Your task to perform on an android device: open the mobile data screen to see how much data has been used Image 0: 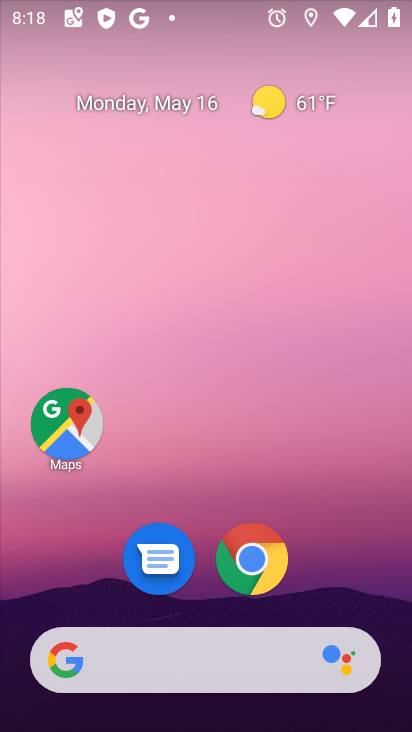
Step 0: drag from (363, 582) to (350, 90)
Your task to perform on an android device: open the mobile data screen to see how much data has been used Image 1: 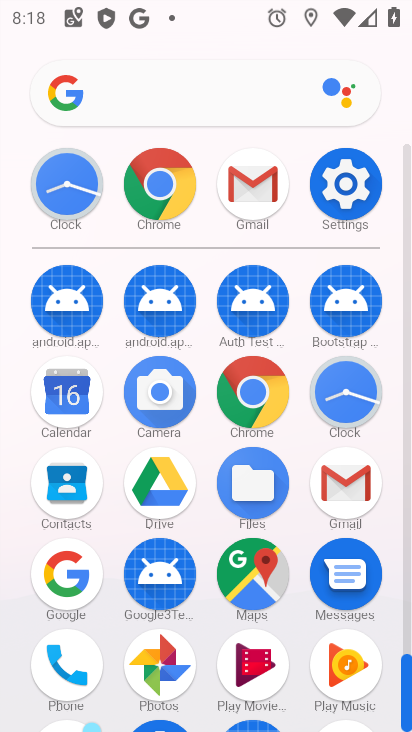
Step 1: drag from (386, 529) to (380, 255)
Your task to perform on an android device: open the mobile data screen to see how much data has been used Image 2: 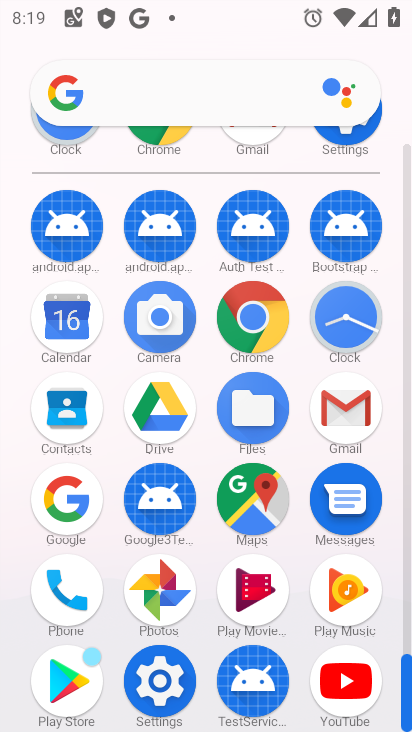
Step 2: click (176, 711)
Your task to perform on an android device: open the mobile data screen to see how much data has been used Image 3: 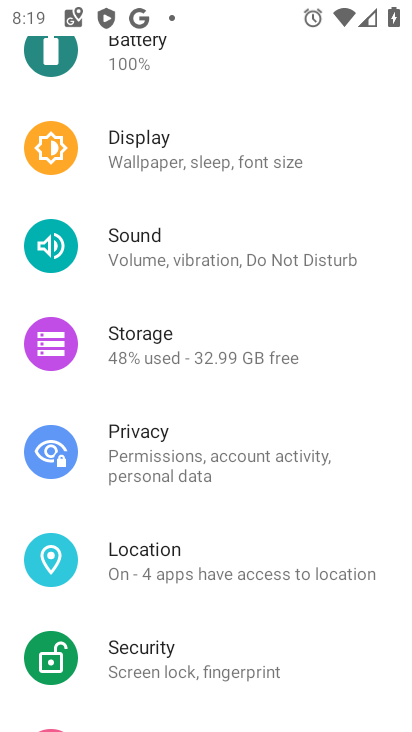
Step 3: drag from (275, 200) to (238, 602)
Your task to perform on an android device: open the mobile data screen to see how much data has been used Image 4: 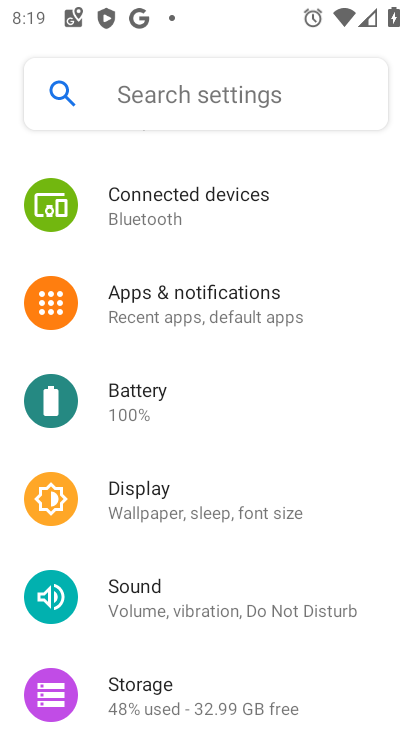
Step 4: drag from (268, 296) to (251, 548)
Your task to perform on an android device: open the mobile data screen to see how much data has been used Image 5: 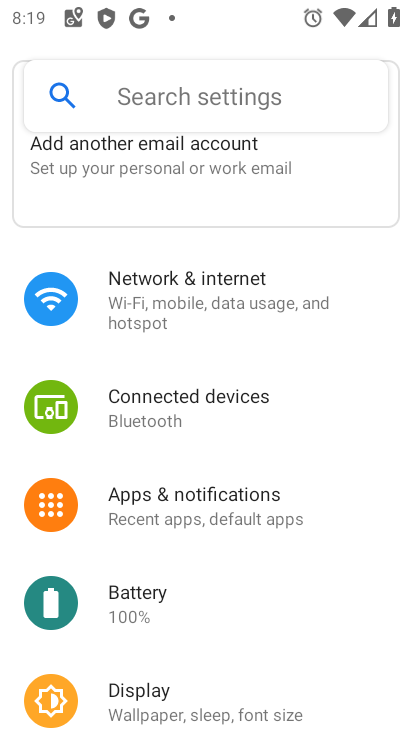
Step 5: click (274, 295)
Your task to perform on an android device: open the mobile data screen to see how much data has been used Image 6: 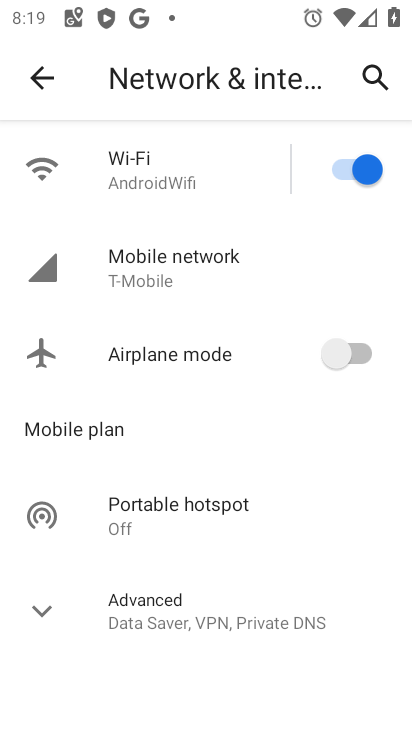
Step 6: click (236, 249)
Your task to perform on an android device: open the mobile data screen to see how much data has been used Image 7: 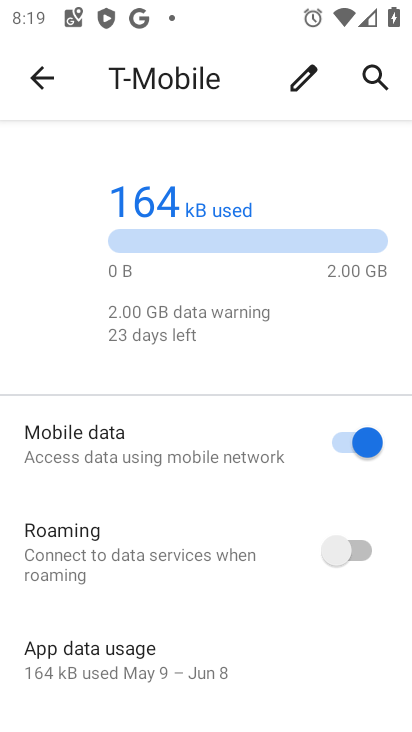
Step 7: task complete